Your task to perform on an android device: toggle priority inbox in the gmail app Image 0: 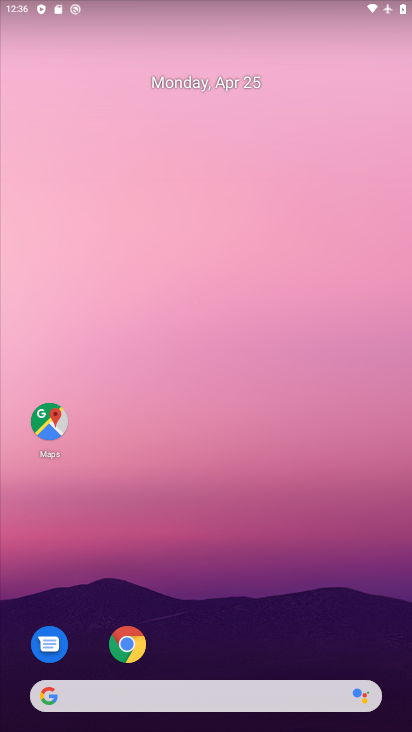
Step 0: drag from (213, 608) to (267, 328)
Your task to perform on an android device: toggle priority inbox in the gmail app Image 1: 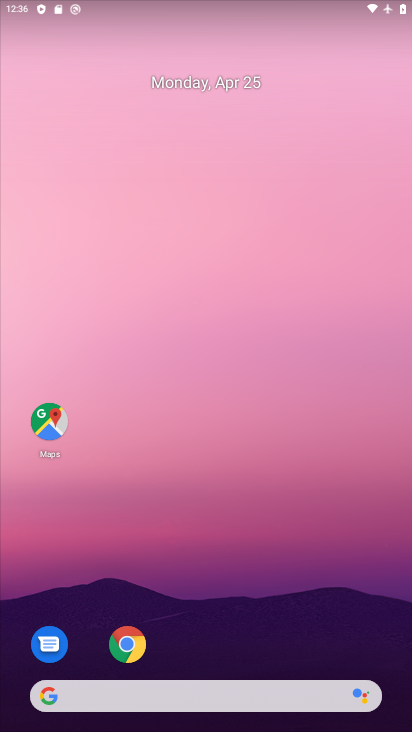
Step 1: drag from (254, 613) to (154, 68)
Your task to perform on an android device: toggle priority inbox in the gmail app Image 2: 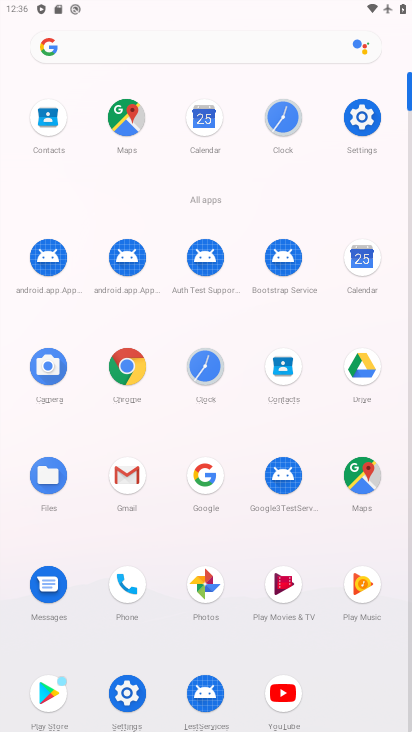
Step 2: click (122, 482)
Your task to perform on an android device: toggle priority inbox in the gmail app Image 3: 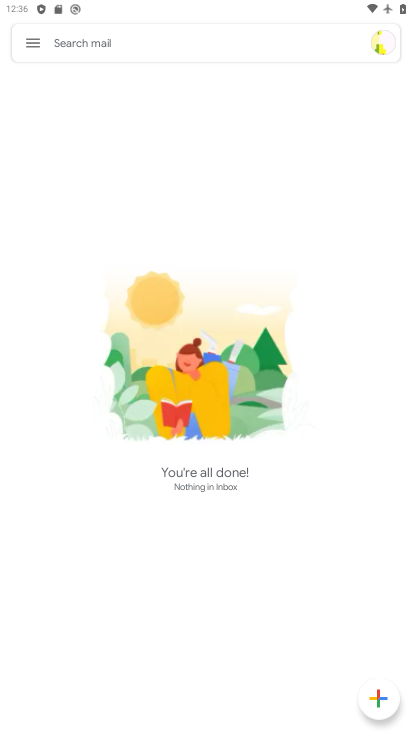
Step 3: click (43, 57)
Your task to perform on an android device: toggle priority inbox in the gmail app Image 4: 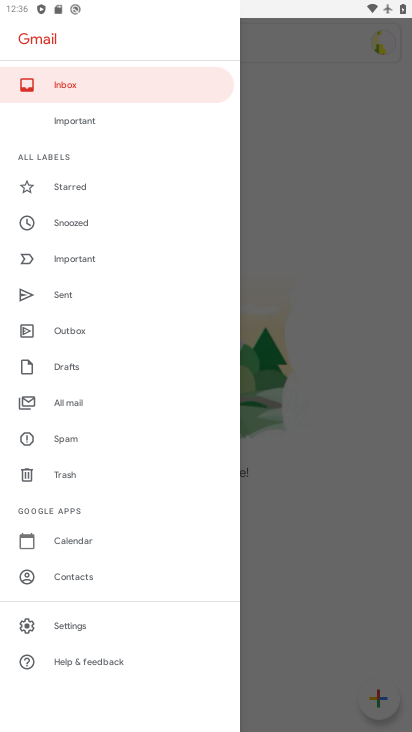
Step 4: click (74, 83)
Your task to perform on an android device: toggle priority inbox in the gmail app Image 5: 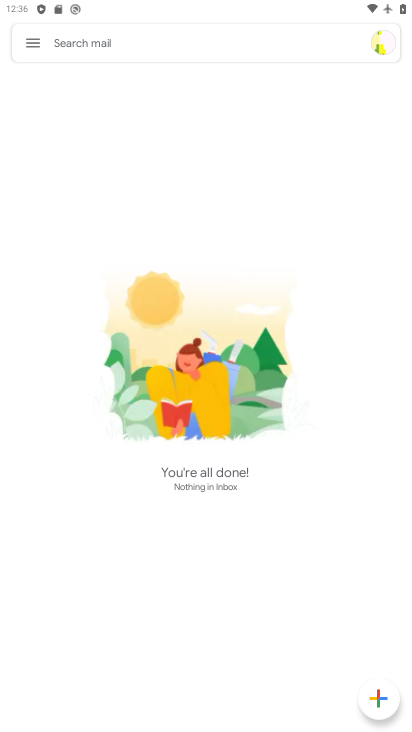
Step 5: task complete